Your task to perform on an android device: refresh tabs in the chrome app Image 0: 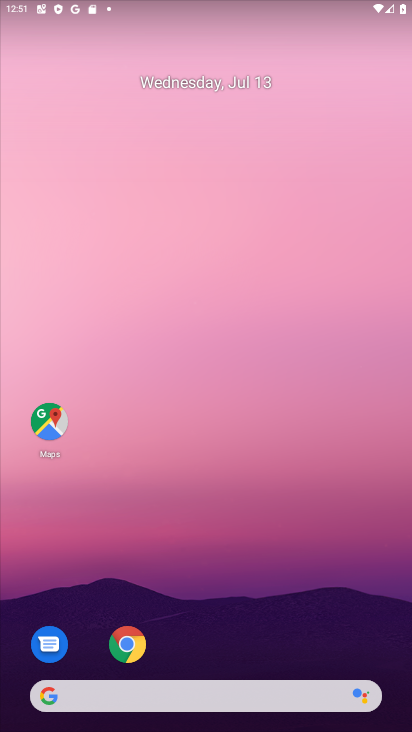
Step 0: drag from (325, 631) to (266, 185)
Your task to perform on an android device: refresh tabs in the chrome app Image 1: 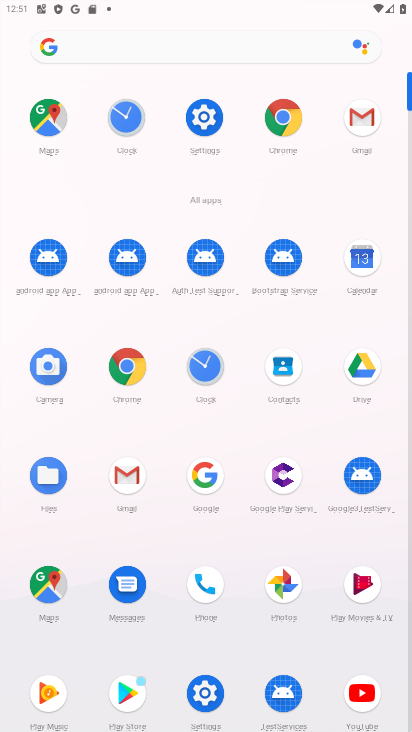
Step 1: click (282, 123)
Your task to perform on an android device: refresh tabs in the chrome app Image 2: 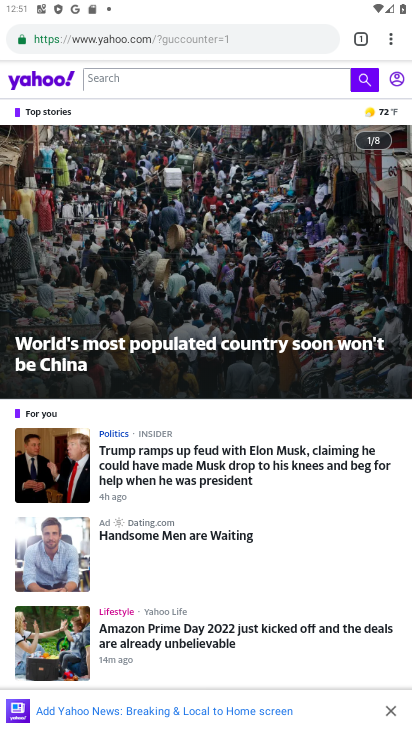
Step 2: click (392, 47)
Your task to perform on an android device: refresh tabs in the chrome app Image 3: 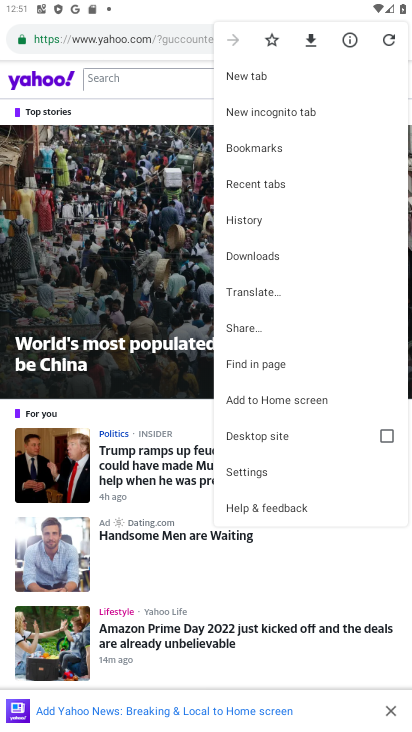
Step 3: click (390, 40)
Your task to perform on an android device: refresh tabs in the chrome app Image 4: 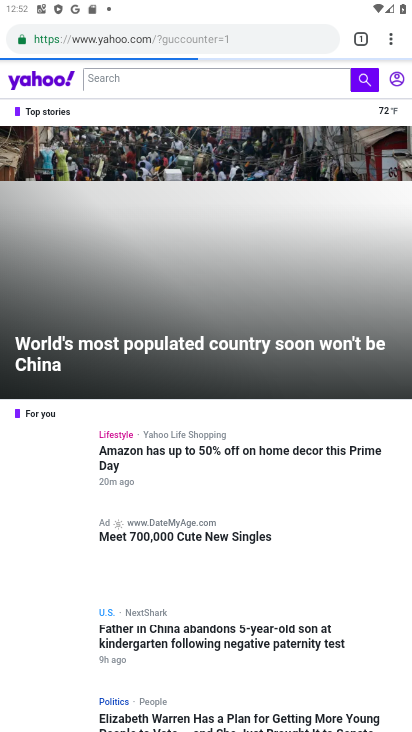
Step 4: task complete